Your task to perform on an android device: Open internet settings Image 0: 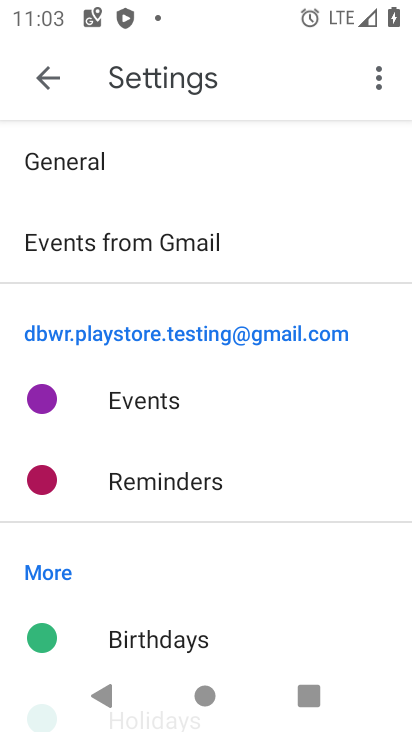
Step 0: press home button
Your task to perform on an android device: Open internet settings Image 1: 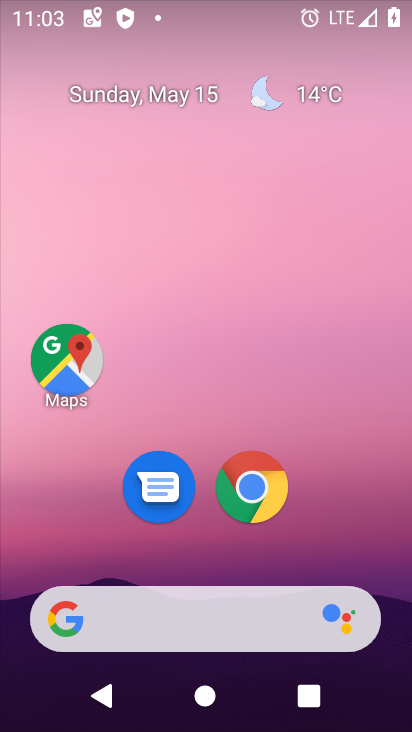
Step 1: drag from (402, 631) to (318, 160)
Your task to perform on an android device: Open internet settings Image 2: 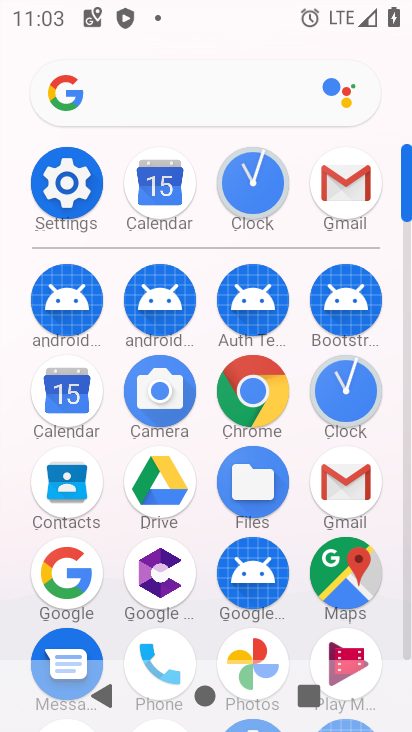
Step 2: click (410, 640)
Your task to perform on an android device: Open internet settings Image 3: 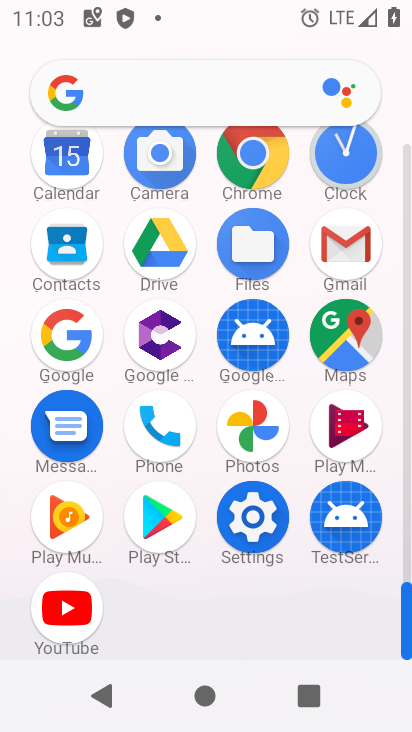
Step 3: click (255, 518)
Your task to perform on an android device: Open internet settings Image 4: 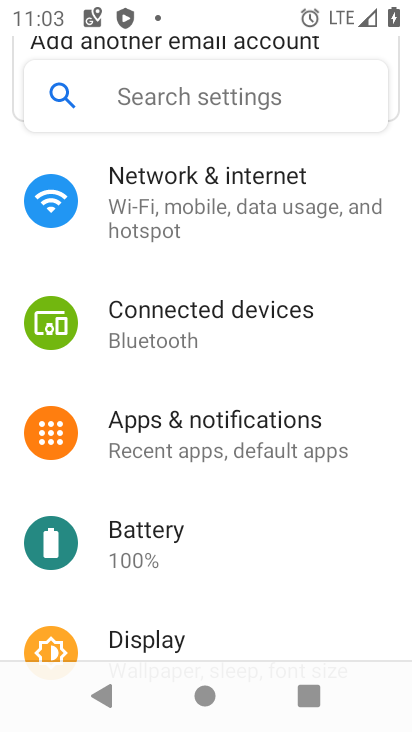
Step 4: click (134, 192)
Your task to perform on an android device: Open internet settings Image 5: 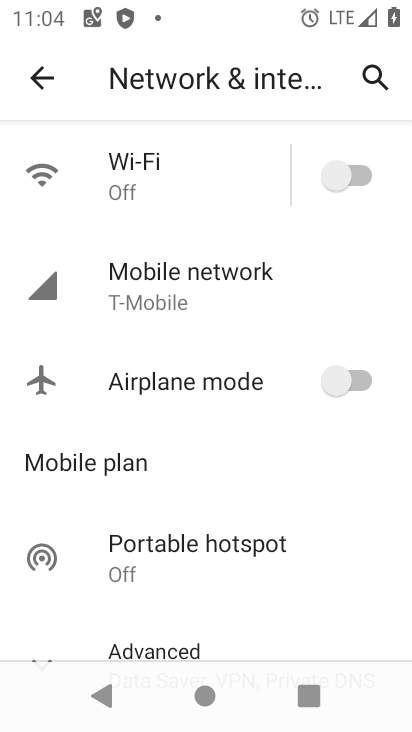
Step 5: click (147, 270)
Your task to perform on an android device: Open internet settings Image 6: 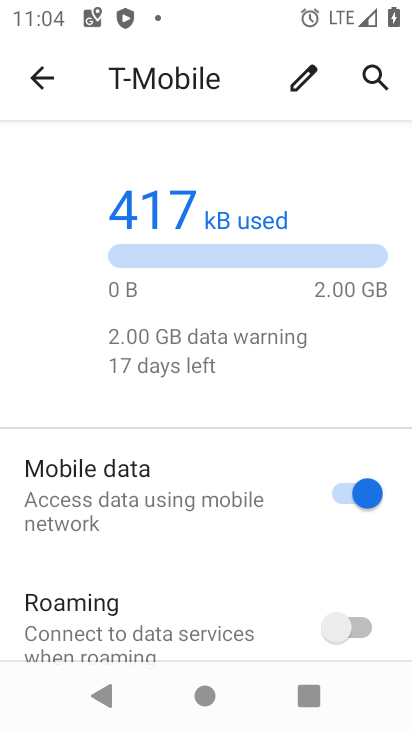
Step 6: drag from (243, 602) to (285, 140)
Your task to perform on an android device: Open internet settings Image 7: 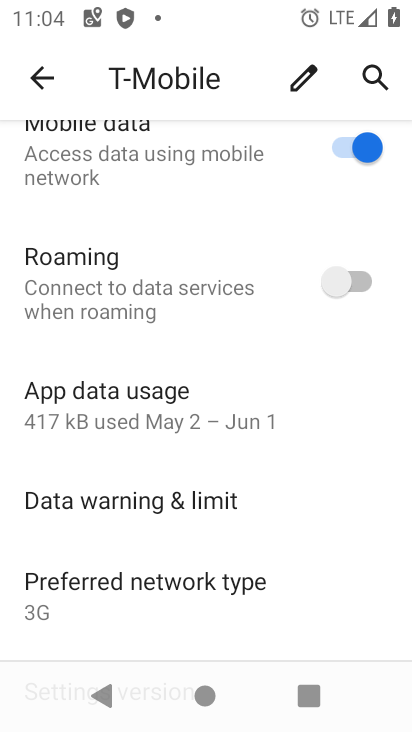
Step 7: drag from (305, 587) to (243, 132)
Your task to perform on an android device: Open internet settings Image 8: 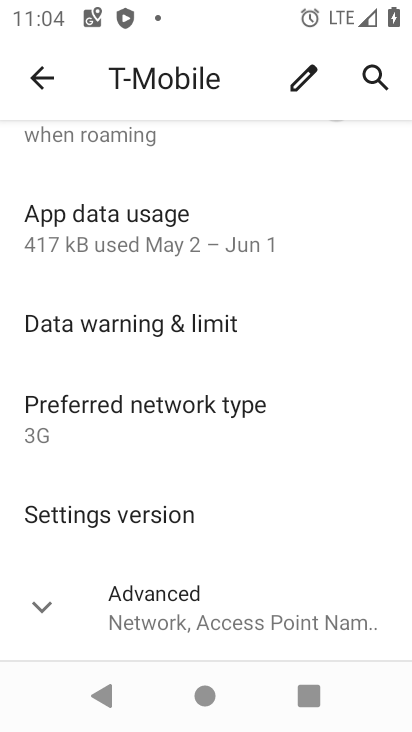
Step 8: click (49, 609)
Your task to perform on an android device: Open internet settings Image 9: 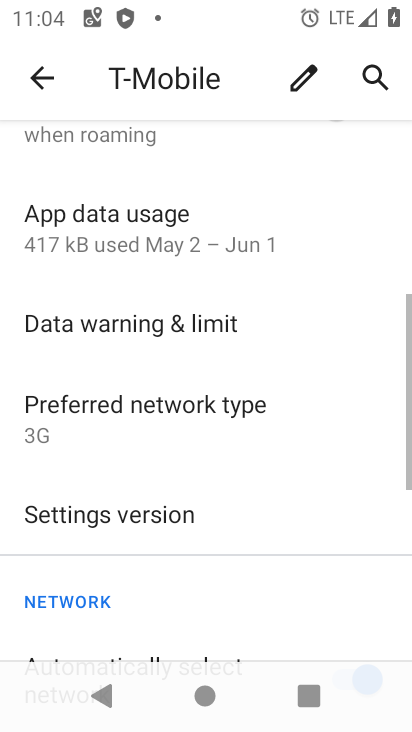
Step 9: task complete